Your task to perform on an android device: turn on data saver in the chrome app Image 0: 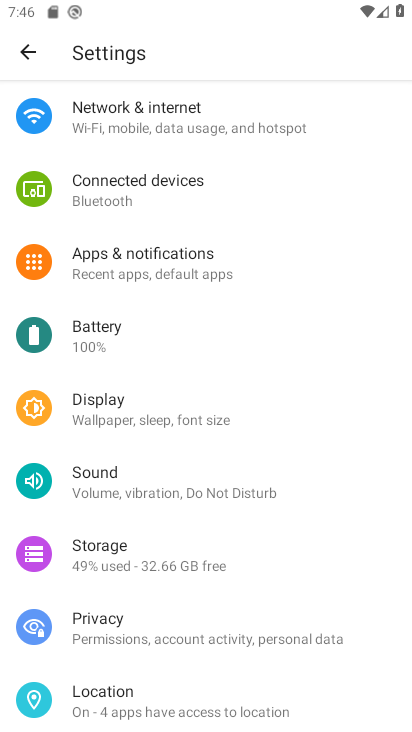
Step 0: press home button
Your task to perform on an android device: turn on data saver in the chrome app Image 1: 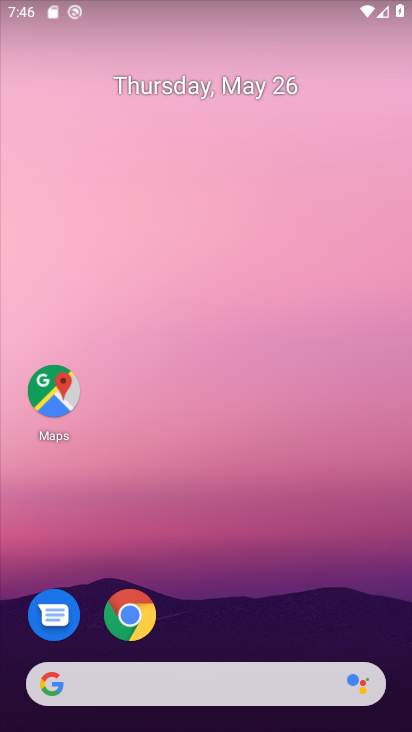
Step 1: click (130, 608)
Your task to perform on an android device: turn on data saver in the chrome app Image 2: 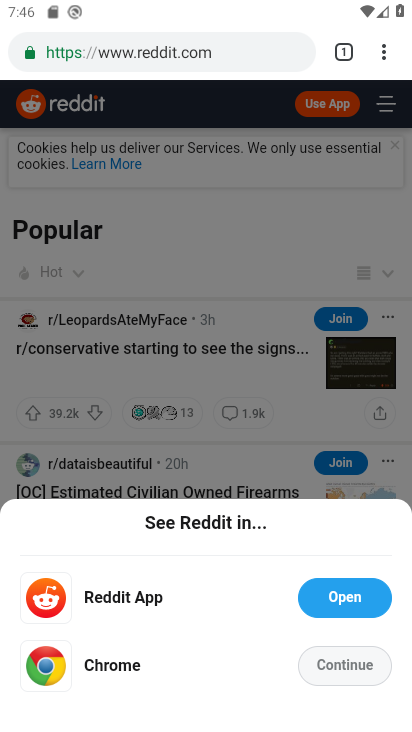
Step 2: click (394, 48)
Your task to perform on an android device: turn on data saver in the chrome app Image 3: 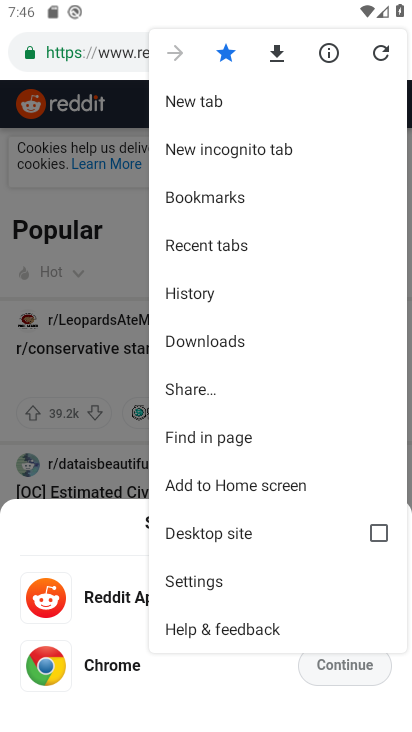
Step 3: click (239, 579)
Your task to perform on an android device: turn on data saver in the chrome app Image 4: 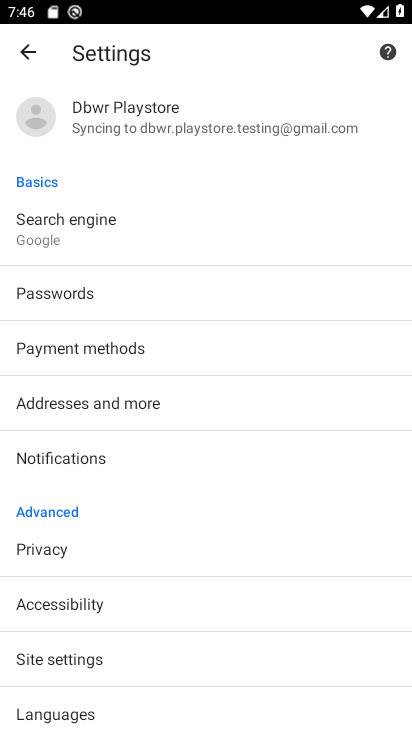
Step 4: drag from (241, 557) to (272, 278)
Your task to perform on an android device: turn on data saver in the chrome app Image 5: 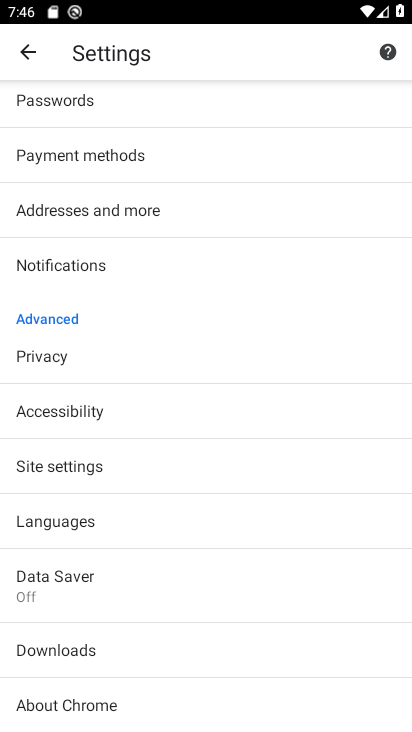
Step 5: click (125, 604)
Your task to perform on an android device: turn on data saver in the chrome app Image 6: 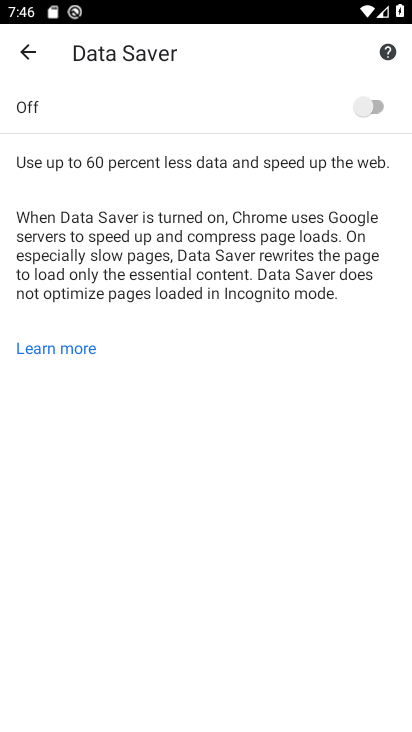
Step 6: click (359, 111)
Your task to perform on an android device: turn on data saver in the chrome app Image 7: 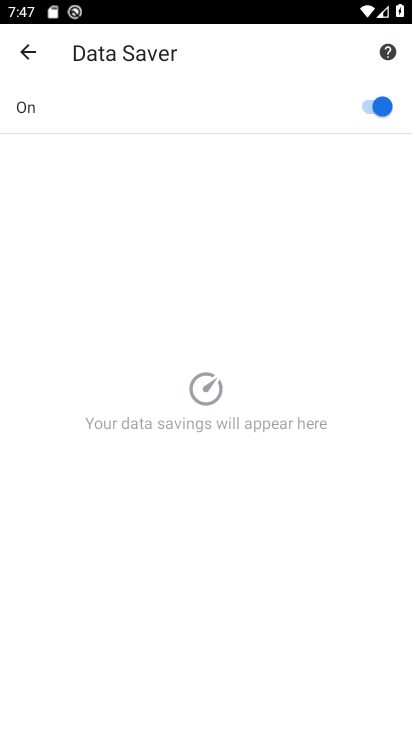
Step 7: task complete